Your task to perform on an android device: Search for Italian restaurants on Maps Image 0: 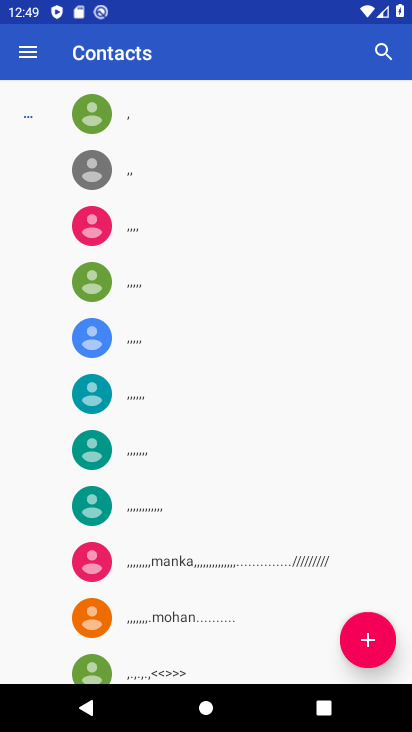
Step 0: press home button
Your task to perform on an android device: Search for Italian restaurants on Maps Image 1: 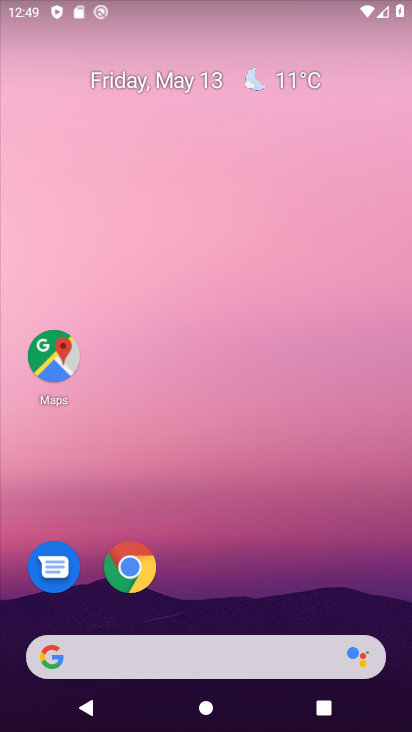
Step 1: click (43, 391)
Your task to perform on an android device: Search for Italian restaurants on Maps Image 2: 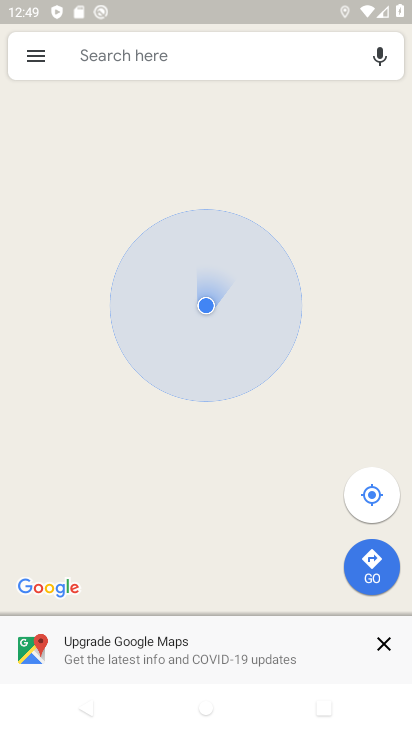
Step 2: click (197, 58)
Your task to perform on an android device: Search for Italian restaurants on Maps Image 3: 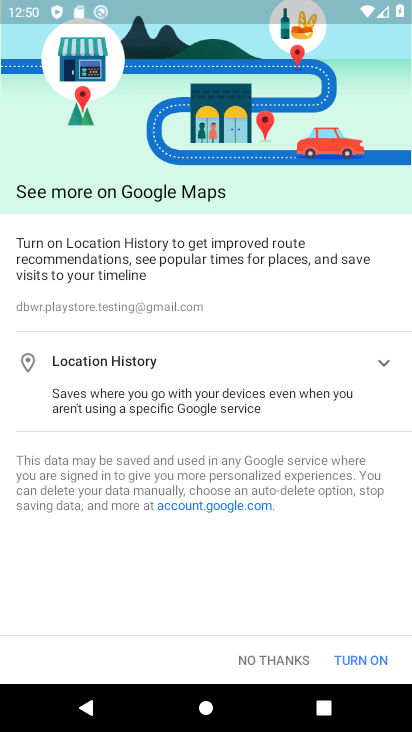
Step 3: click (282, 649)
Your task to perform on an android device: Search for Italian restaurants on Maps Image 4: 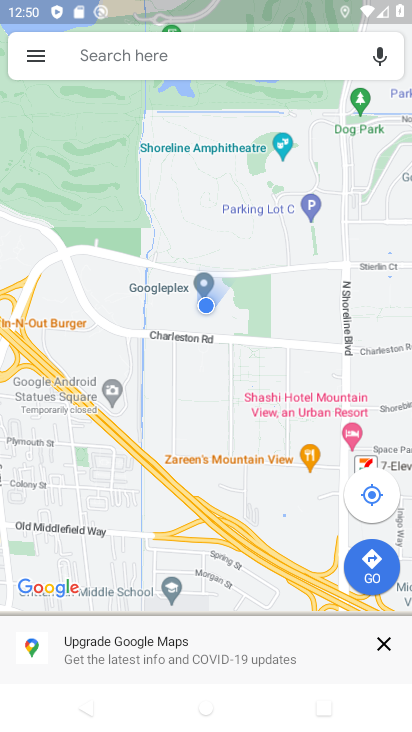
Step 4: click (182, 57)
Your task to perform on an android device: Search for Italian restaurants on Maps Image 5: 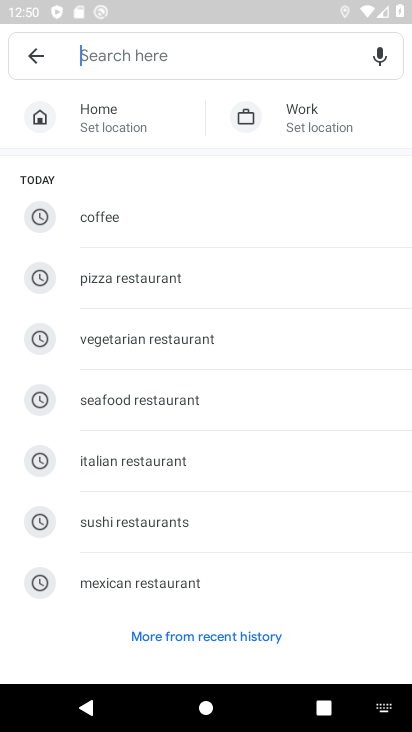
Step 5: click (146, 464)
Your task to perform on an android device: Search for Italian restaurants on Maps Image 6: 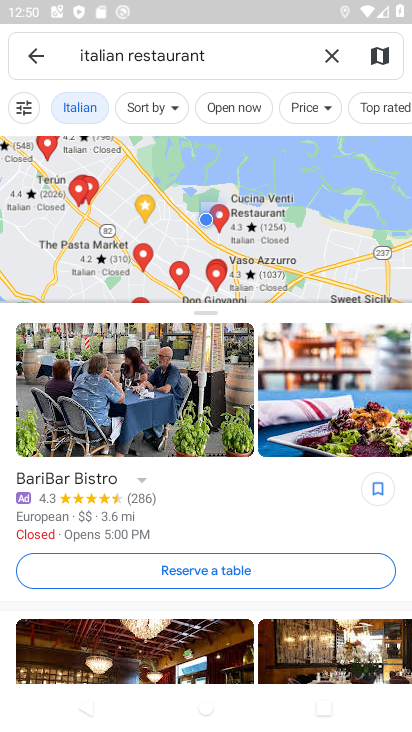
Step 6: task complete